Your task to perform on an android device: turn on data saver in the chrome app Image 0: 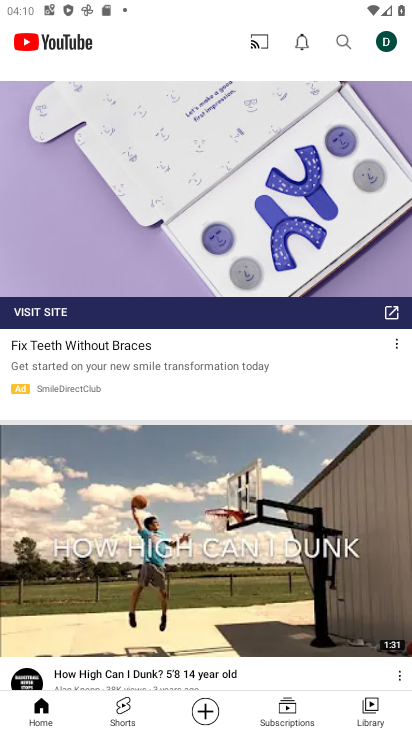
Step 0: press home button
Your task to perform on an android device: turn on data saver in the chrome app Image 1: 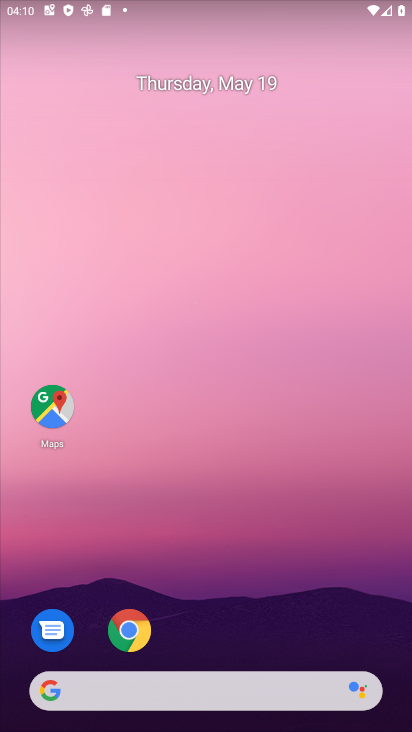
Step 1: click (129, 634)
Your task to perform on an android device: turn on data saver in the chrome app Image 2: 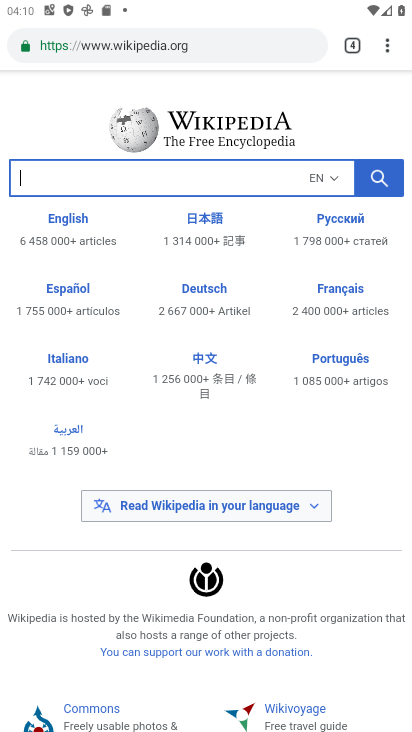
Step 2: click (383, 51)
Your task to perform on an android device: turn on data saver in the chrome app Image 3: 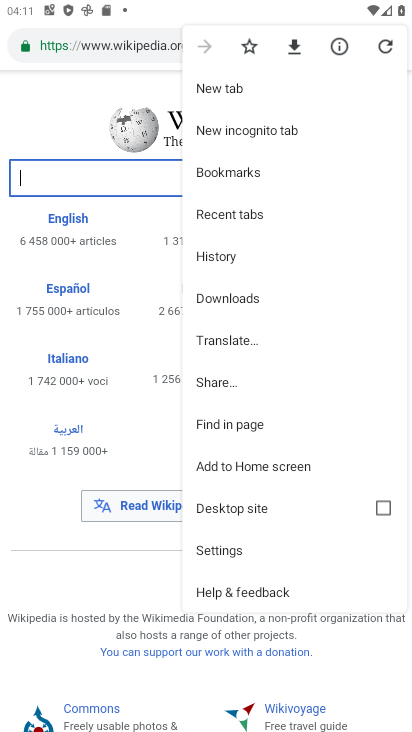
Step 3: click (225, 554)
Your task to perform on an android device: turn on data saver in the chrome app Image 4: 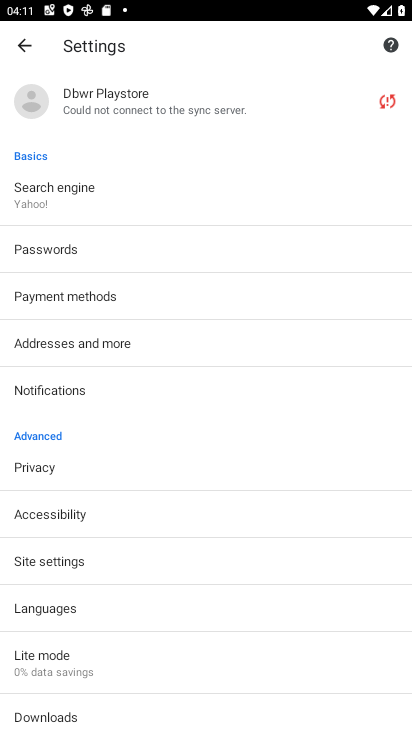
Step 4: click (48, 660)
Your task to perform on an android device: turn on data saver in the chrome app Image 5: 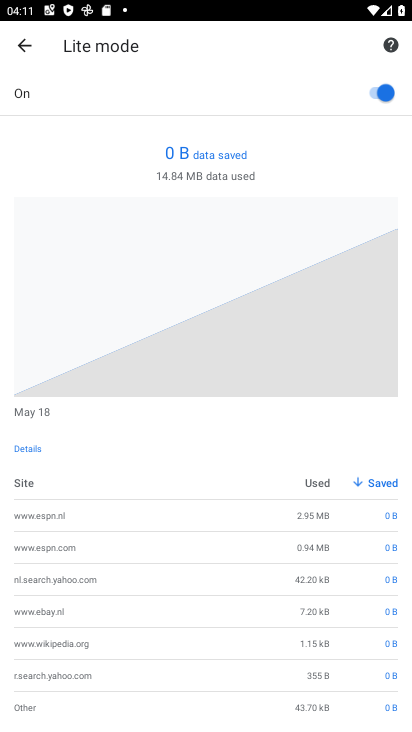
Step 5: task complete